Your task to perform on an android device: What's on my calendar today? Image 0: 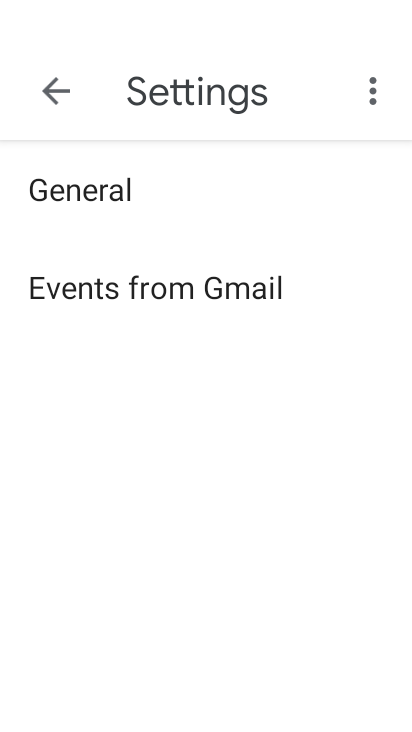
Step 0: press home button
Your task to perform on an android device: What's on my calendar today? Image 1: 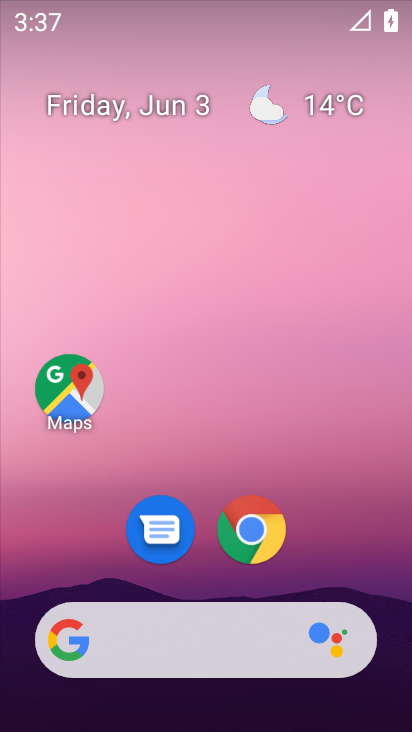
Step 1: drag from (381, 463) to (362, 45)
Your task to perform on an android device: What's on my calendar today? Image 2: 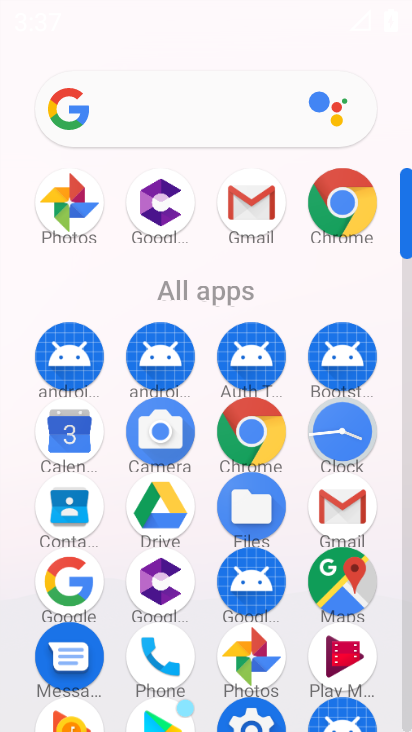
Step 2: click (74, 438)
Your task to perform on an android device: What's on my calendar today? Image 3: 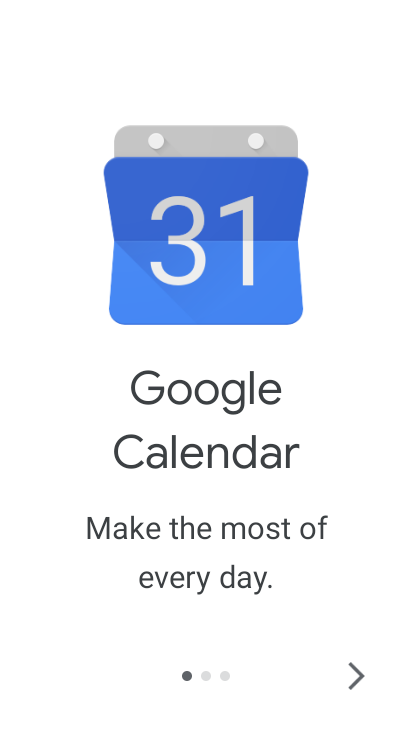
Step 3: click (334, 681)
Your task to perform on an android device: What's on my calendar today? Image 4: 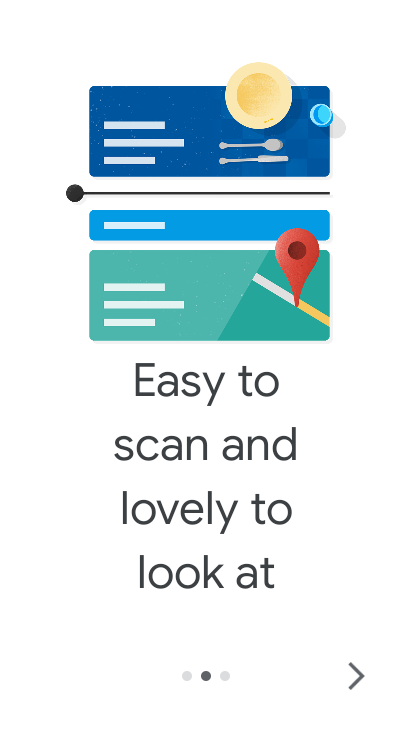
Step 4: click (334, 680)
Your task to perform on an android device: What's on my calendar today? Image 5: 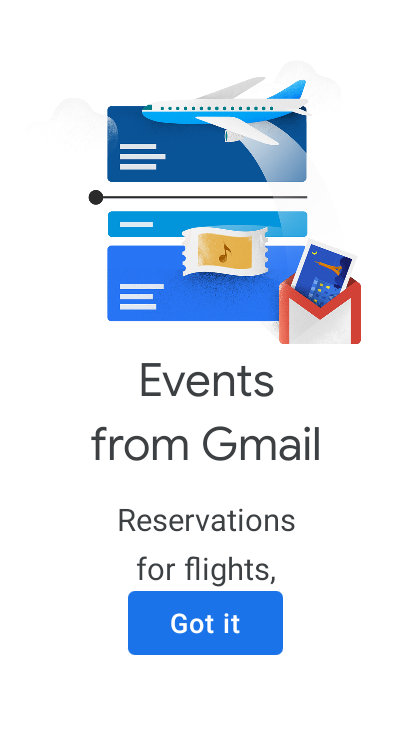
Step 5: click (228, 619)
Your task to perform on an android device: What's on my calendar today? Image 6: 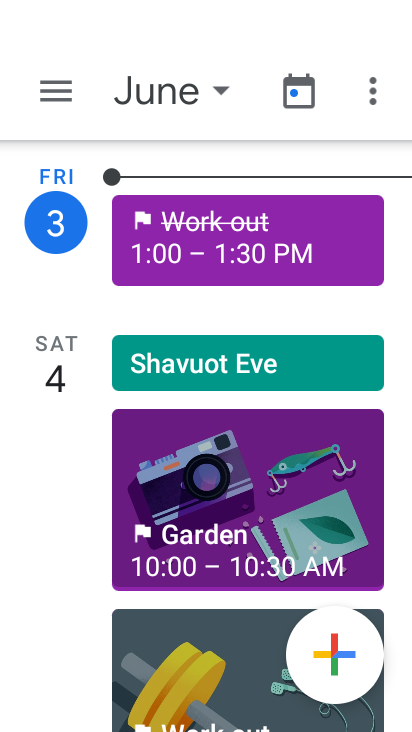
Step 6: click (163, 91)
Your task to perform on an android device: What's on my calendar today? Image 7: 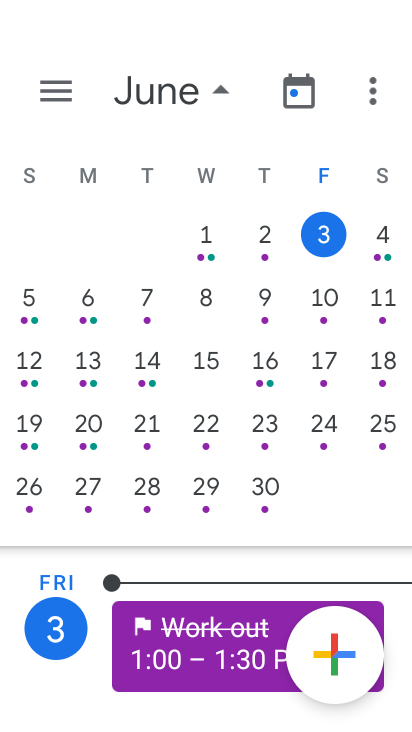
Step 7: task complete